Your task to perform on an android device: turn vacation reply on in the gmail app Image 0: 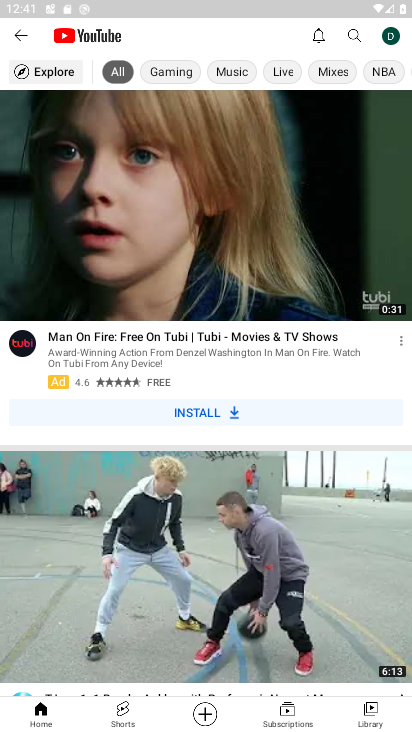
Step 0: press home button
Your task to perform on an android device: turn vacation reply on in the gmail app Image 1: 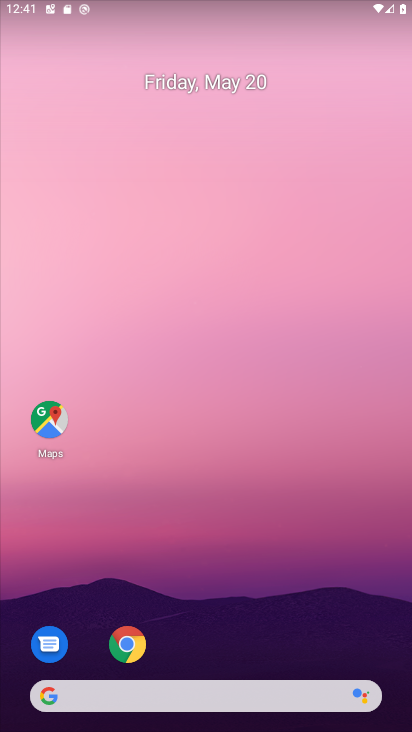
Step 1: drag from (255, 586) to (282, 365)
Your task to perform on an android device: turn vacation reply on in the gmail app Image 2: 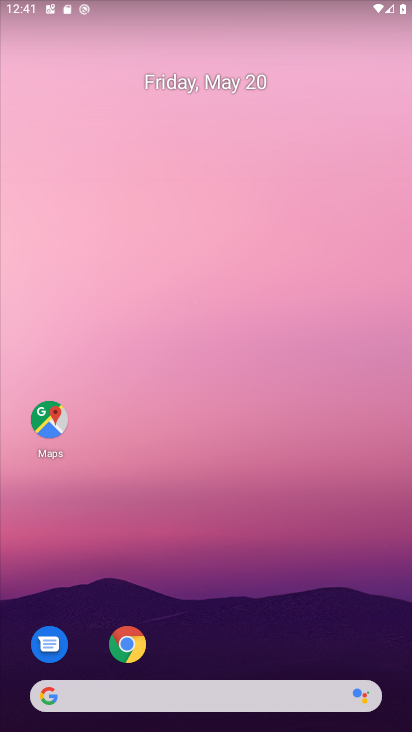
Step 2: drag from (255, 681) to (253, 308)
Your task to perform on an android device: turn vacation reply on in the gmail app Image 3: 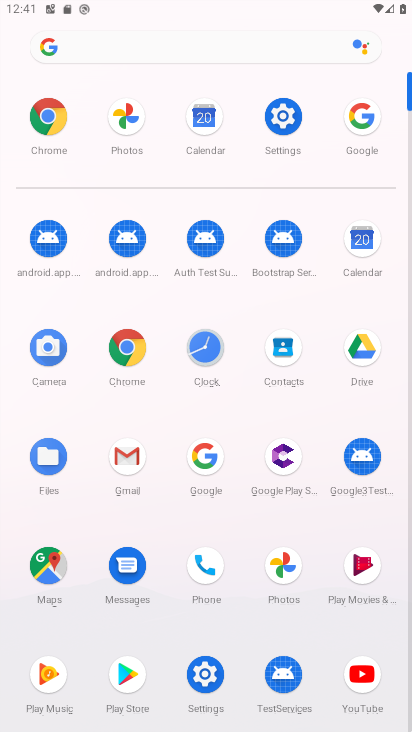
Step 3: click (128, 460)
Your task to perform on an android device: turn vacation reply on in the gmail app Image 4: 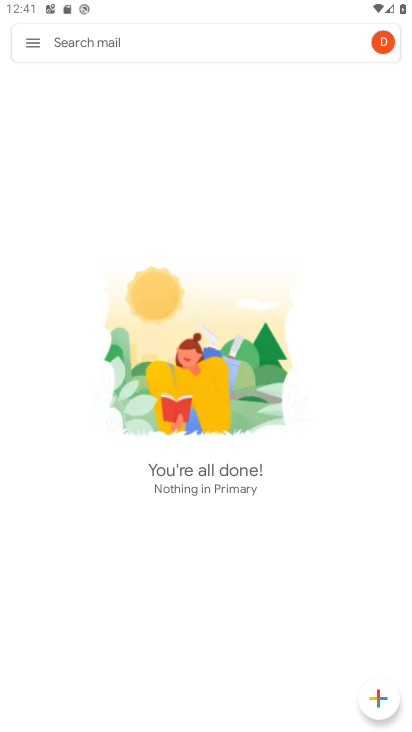
Step 4: click (28, 42)
Your task to perform on an android device: turn vacation reply on in the gmail app Image 5: 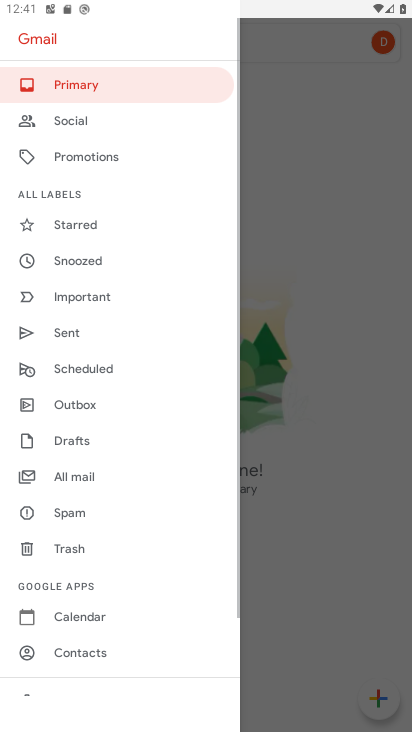
Step 5: drag from (90, 665) to (138, 304)
Your task to perform on an android device: turn vacation reply on in the gmail app Image 6: 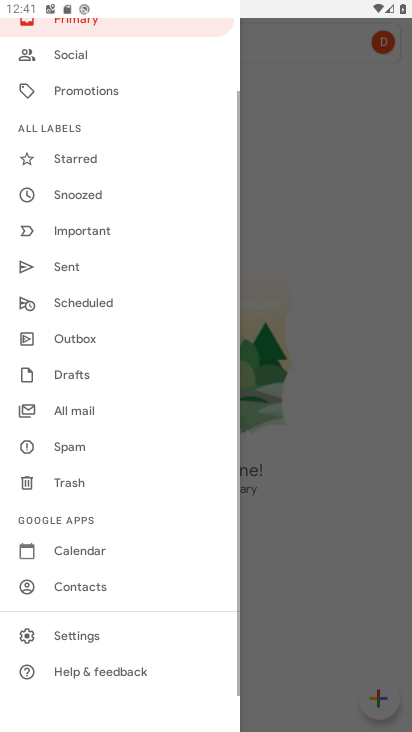
Step 6: click (69, 648)
Your task to perform on an android device: turn vacation reply on in the gmail app Image 7: 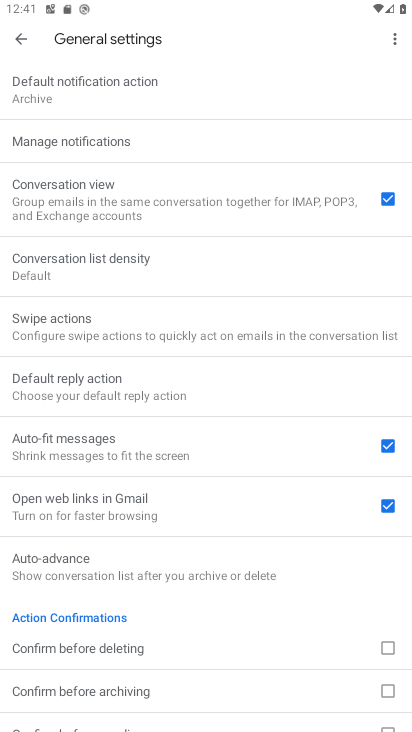
Step 7: drag from (113, 658) to (168, 314)
Your task to perform on an android device: turn vacation reply on in the gmail app Image 8: 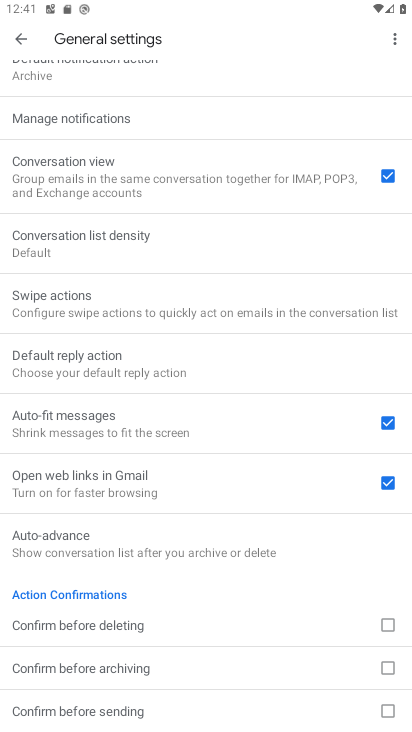
Step 8: drag from (201, 157) to (198, 545)
Your task to perform on an android device: turn vacation reply on in the gmail app Image 9: 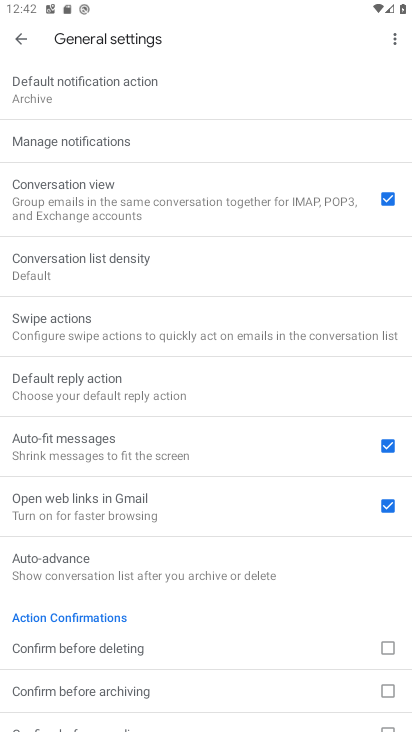
Step 9: click (19, 39)
Your task to perform on an android device: turn vacation reply on in the gmail app Image 10: 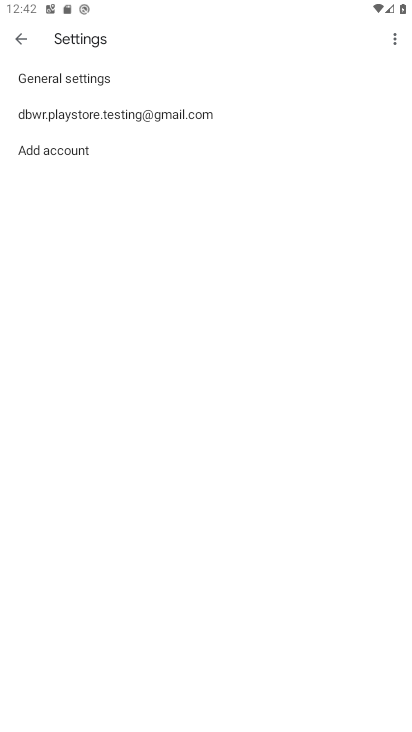
Step 10: click (64, 116)
Your task to perform on an android device: turn vacation reply on in the gmail app Image 11: 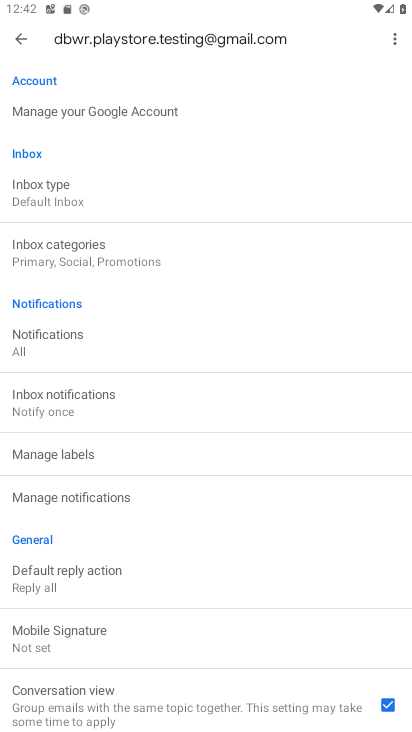
Step 11: drag from (116, 713) to (226, 354)
Your task to perform on an android device: turn vacation reply on in the gmail app Image 12: 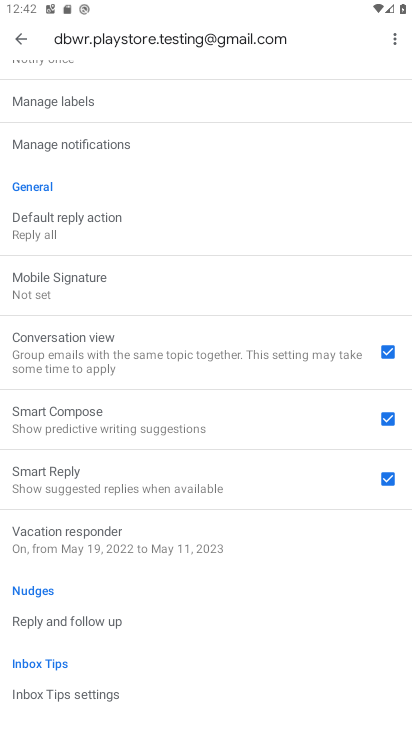
Step 12: click (53, 548)
Your task to perform on an android device: turn vacation reply on in the gmail app Image 13: 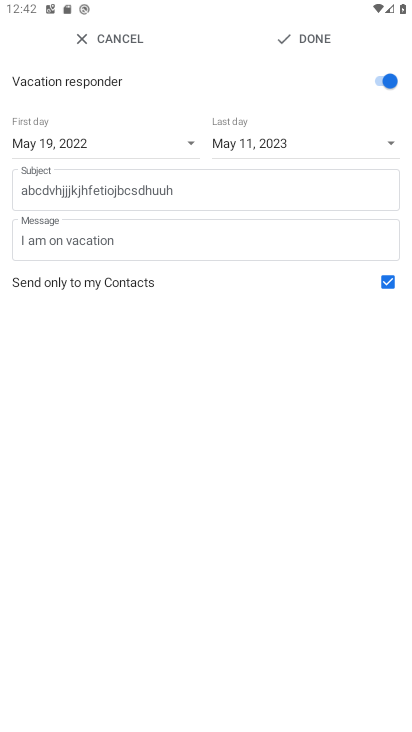
Step 13: click (312, 36)
Your task to perform on an android device: turn vacation reply on in the gmail app Image 14: 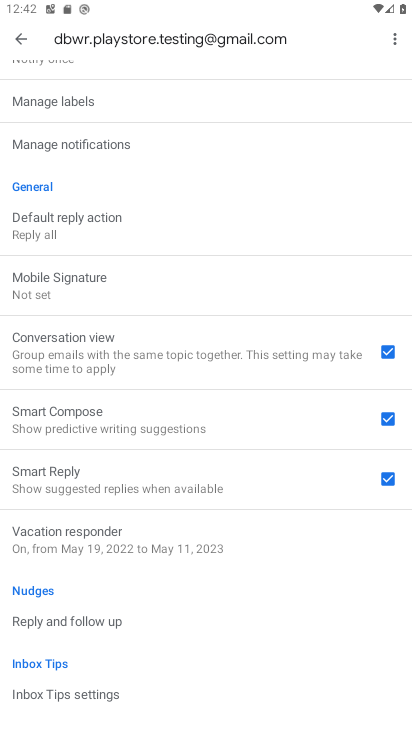
Step 14: task complete